Your task to perform on an android device: Show me productivity apps on the Play Store Image 0: 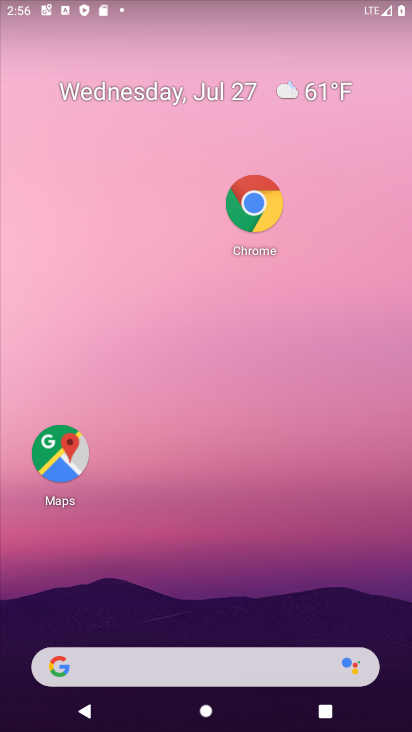
Step 0: drag from (191, 598) to (178, 137)
Your task to perform on an android device: Show me productivity apps on the Play Store Image 1: 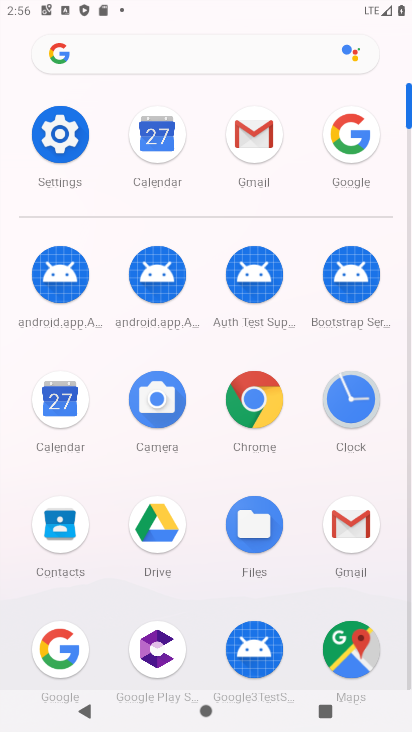
Step 1: drag from (196, 494) to (212, 152)
Your task to perform on an android device: Show me productivity apps on the Play Store Image 2: 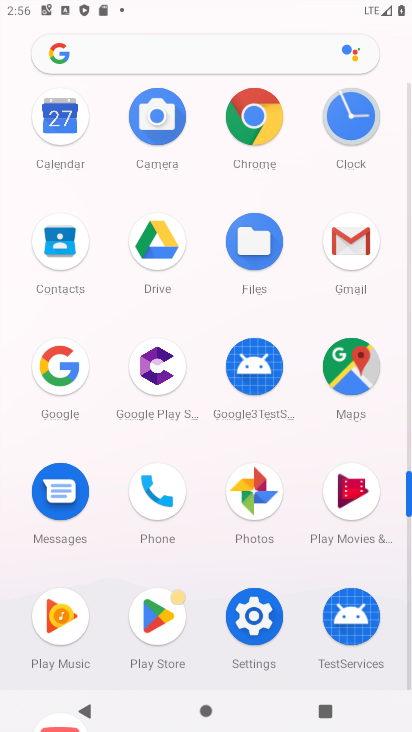
Step 2: click (236, 489)
Your task to perform on an android device: Show me productivity apps on the Play Store Image 3: 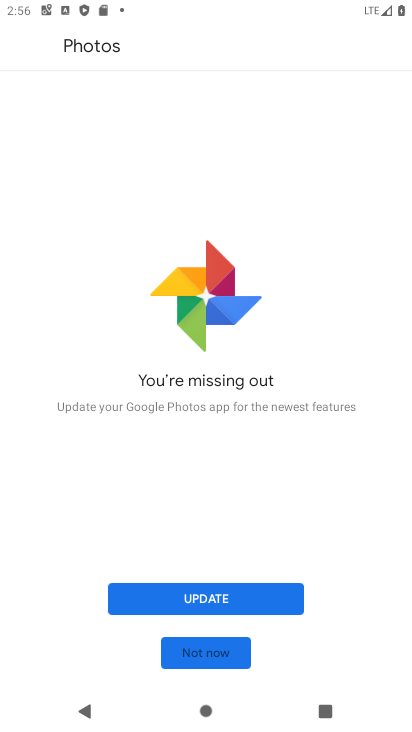
Step 3: click (198, 650)
Your task to perform on an android device: Show me productivity apps on the Play Store Image 4: 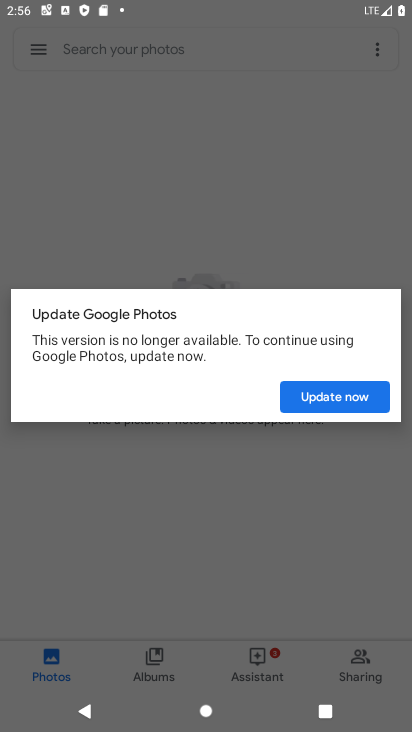
Step 4: press home button
Your task to perform on an android device: Show me productivity apps on the Play Store Image 5: 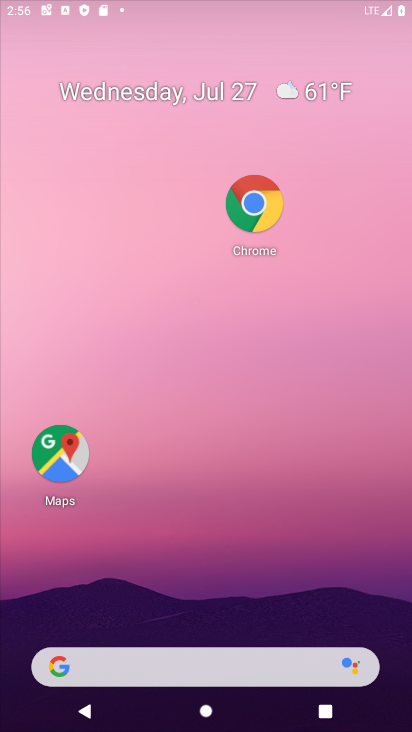
Step 5: drag from (205, 599) to (206, 131)
Your task to perform on an android device: Show me productivity apps on the Play Store Image 6: 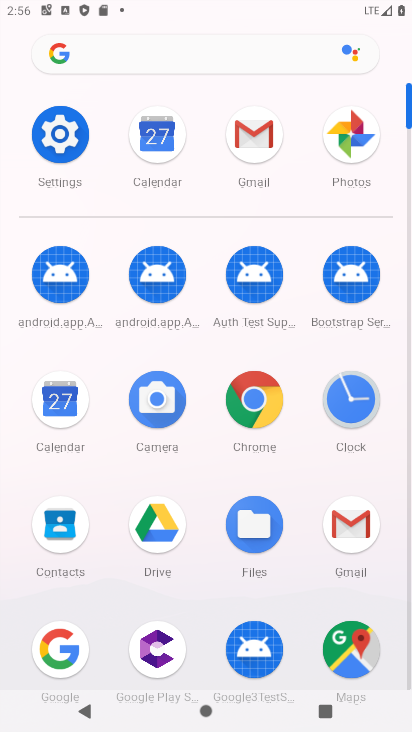
Step 6: drag from (191, 573) to (191, 216)
Your task to perform on an android device: Show me productivity apps on the Play Store Image 7: 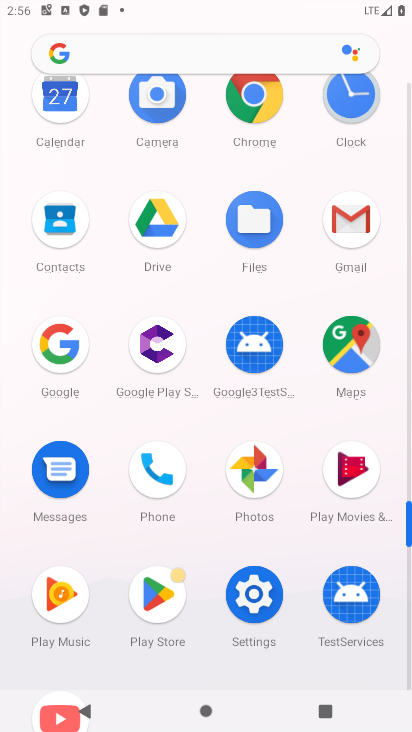
Step 7: click (140, 575)
Your task to perform on an android device: Show me productivity apps on the Play Store Image 8: 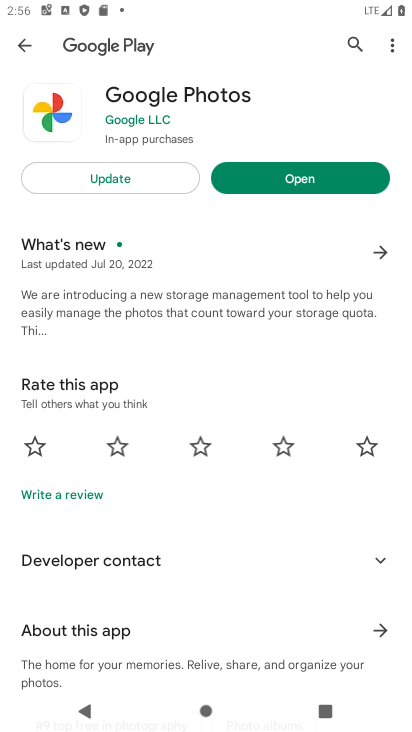
Step 8: click (33, 36)
Your task to perform on an android device: Show me productivity apps on the Play Store Image 9: 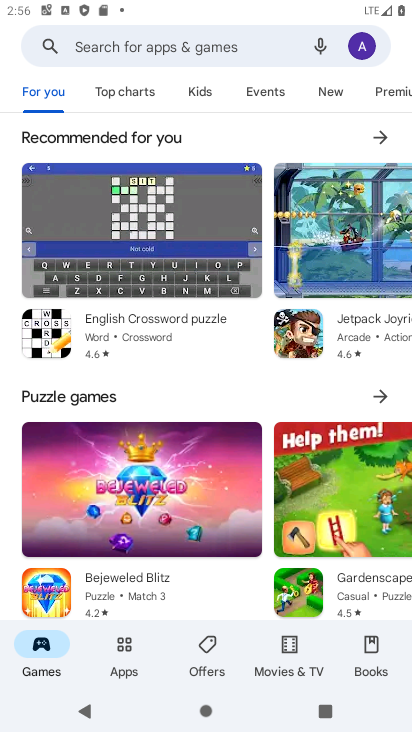
Step 9: click (125, 669)
Your task to perform on an android device: Show me productivity apps on the Play Store Image 10: 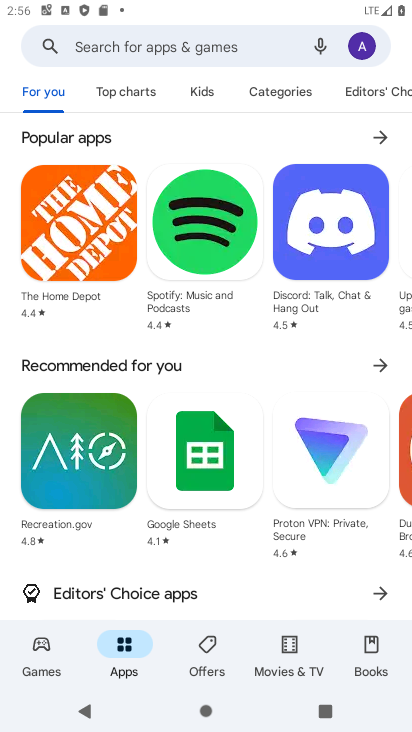
Step 10: click (261, 94)
Your task to perform on an android device: Show me productivity apps on the Play Store Image 11: 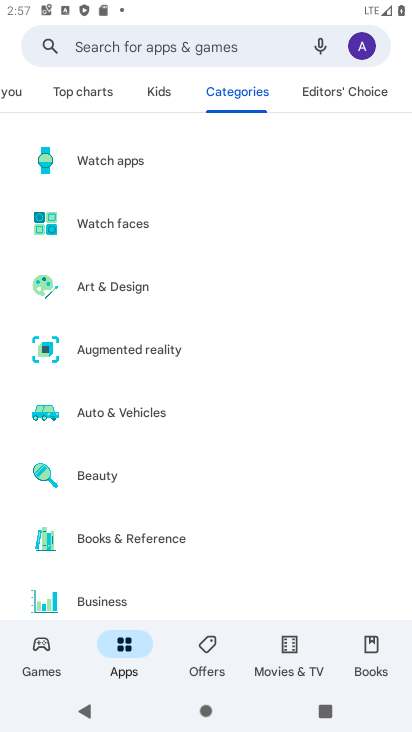
Step 11: drag from (138, 559) to (163, 47)
Your task to perform on an android device: Show me productivity apps on the Play Store Image 12: 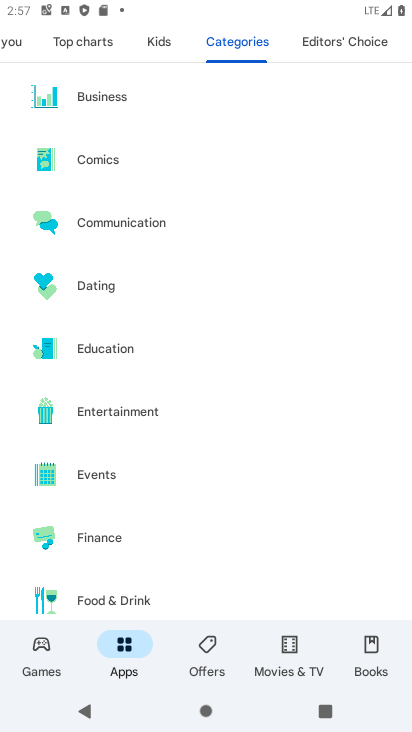
Step 12: drag from (147, 392) to (178, 121)
Your task to perform on an android device: Show me productivity apps on the Play Store Image 13: 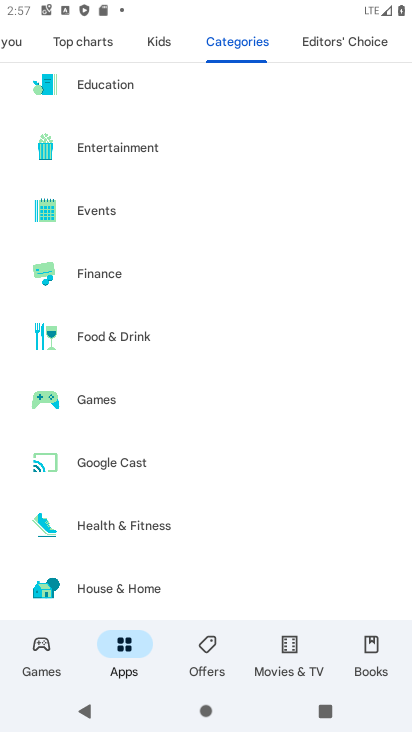
Step 13: drag from (151, 468) to (183, 128)
Your task to perform on an android device: Show me productivity apps on the Play Store Image 14: 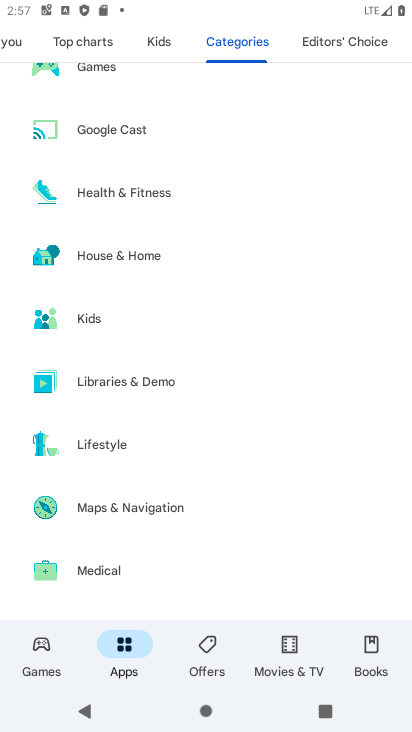
Step 14: drag from (176, 513) to (203, 79)
Your task to perform on an android device: Show me productivity apps on the Play Store Image 15: 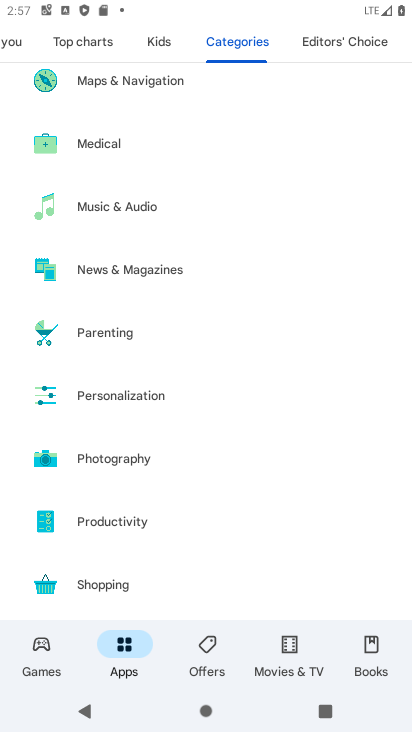
Step 15: click (120, 524)
Your task to perform on an android device: Show me productivity apps on the Play Store Image 16: 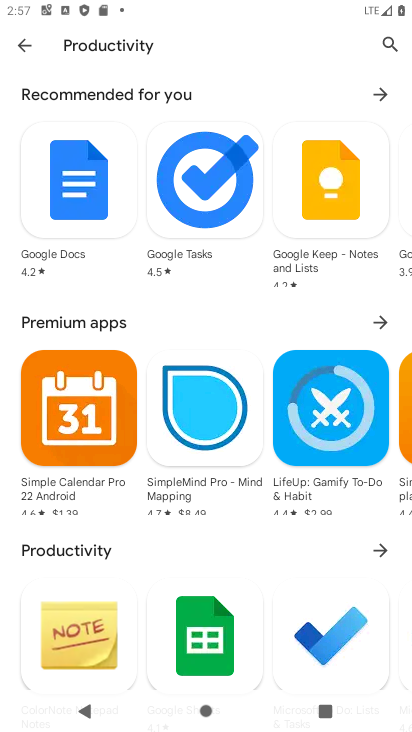
Step 16: task complete